Your task to perform on an android device: open chrome and create a bookmark for the current page Image 0: 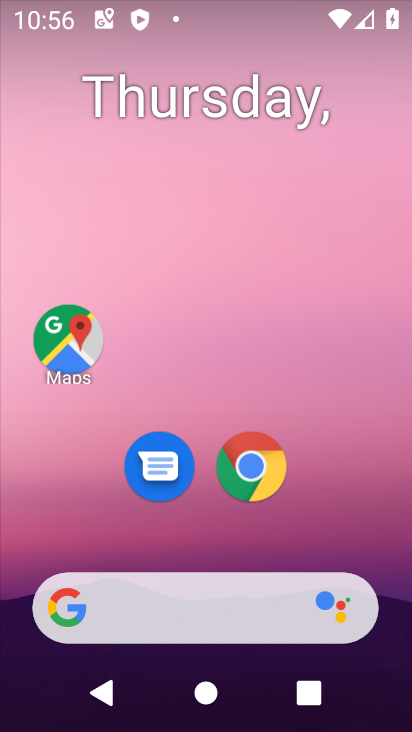
Step 0: click (244, 487)
Your task to perform on an android device: open chrome and create a bookmark for the current page Image 1: 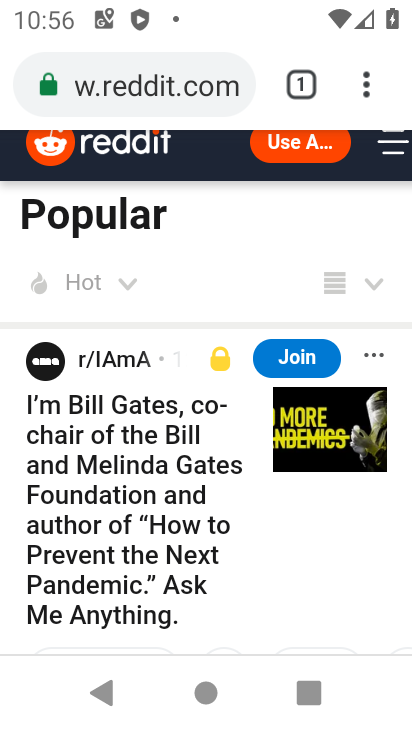
Step 1: task complete